Your task to perform on an android device: delete the emails in spam in the gmail app Image 0: 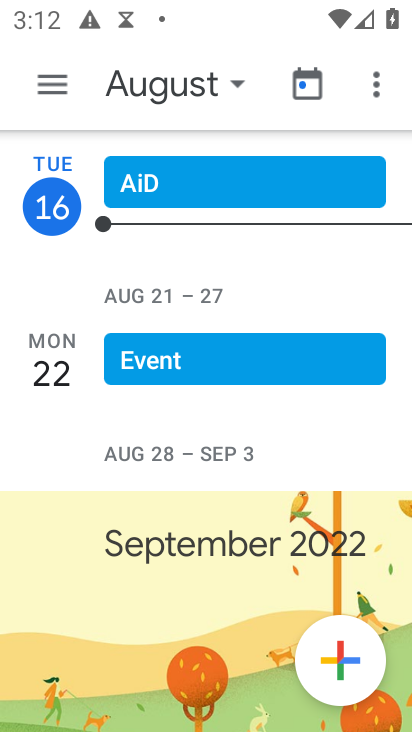
Step 0: press home button
Your task to perform on an android device: delete the emails in spam in the gmail app Image 1: 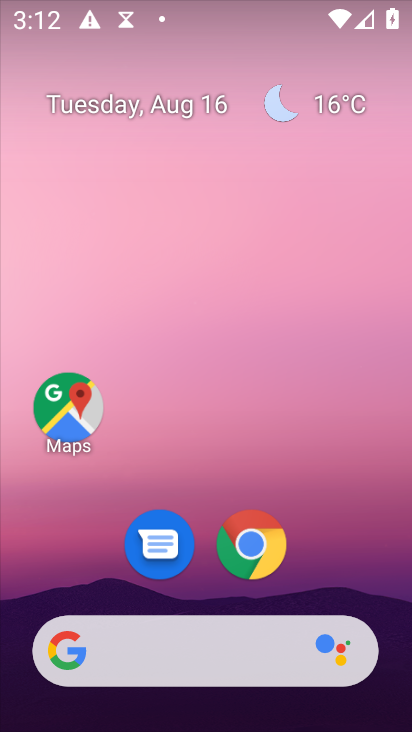
Step 1: drag from (158, 661) to (251, 57)
Your task to perform on an android device: delete the emails in spam in the gmail app Image 2: 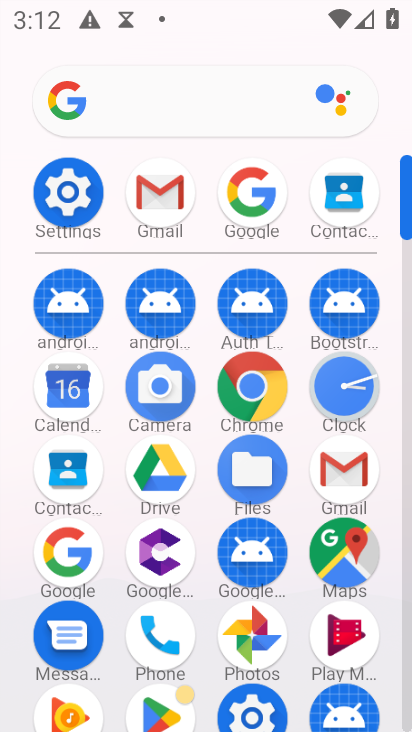
Step 2: click (159, 192)
Your task to perform on an android device: delete the emails in spam in the gmail app Image 3: 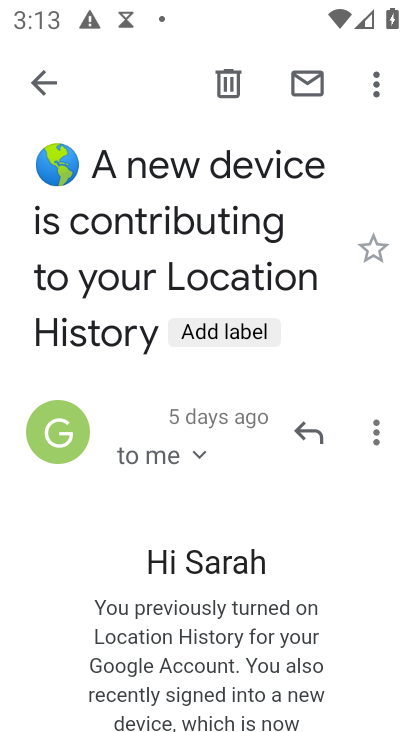
Step 3: press back button
Your task to perform on an android device: delete the emails in spam in the gmail app Image 4: 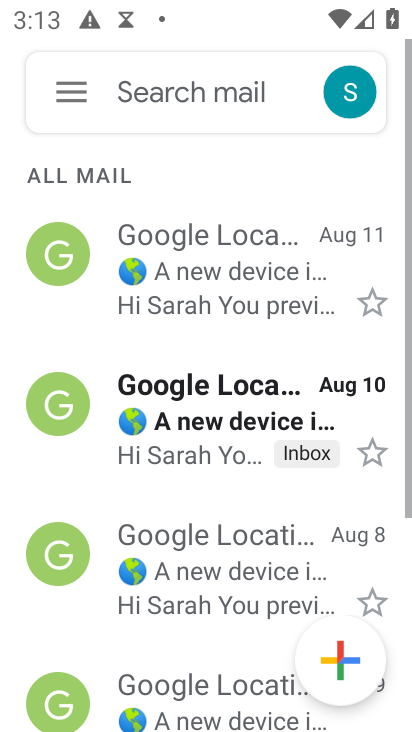
Step 4: click (77, 98)
Your task to perform on an android device: delete the emails in spam in the gmail app Image 5: 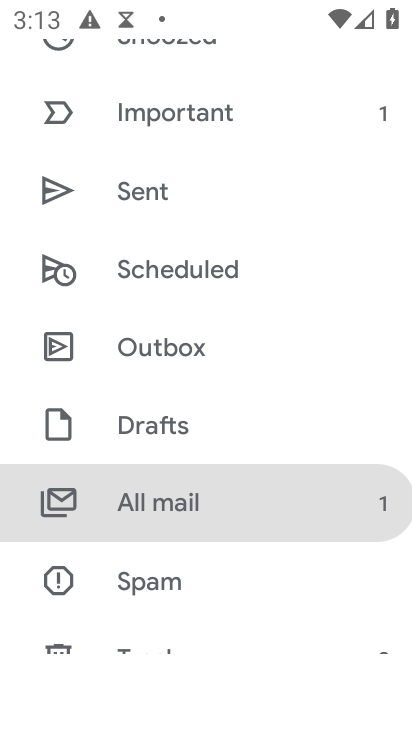
Step 5: drag from (215, 569) to (314, 429)
Your task to perform on an android device: delete the emails in spam in the gmail app Image 6: 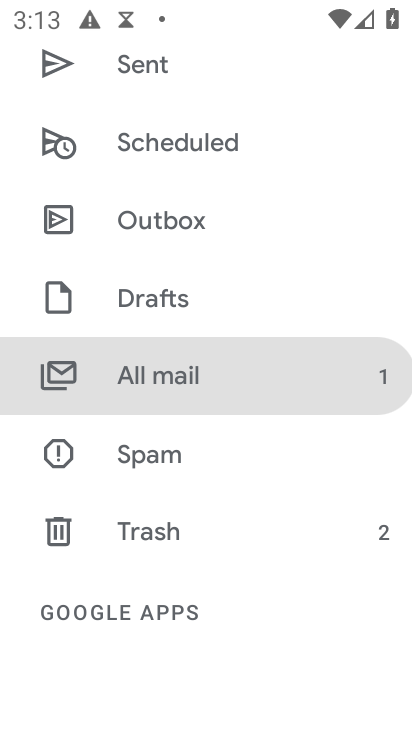
Step 6: click (184, 464)
Your task to perform on an android device: delete the emails in spam in the gmail app Image 7: 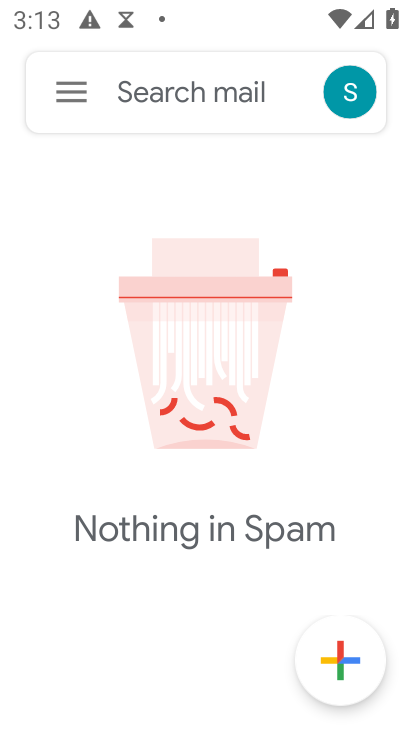
Step 7: task complete